Your task to perform on an android device: Turn on the flashlight Image 0: 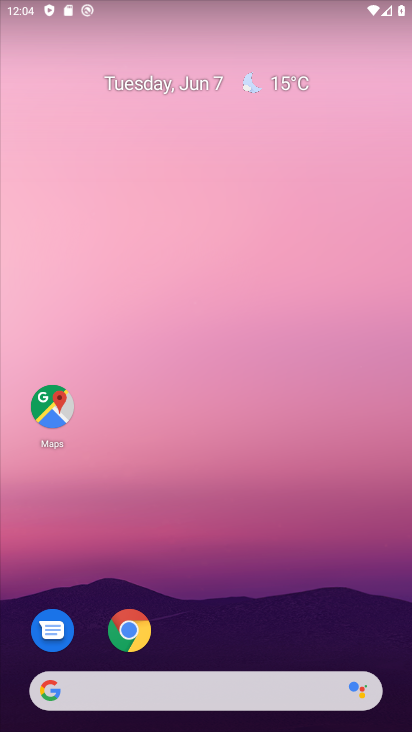
Step 0: drag from (265, 596) to (265, 183)
Your task to perform on an android device: Turn on the flashlight Image 1: 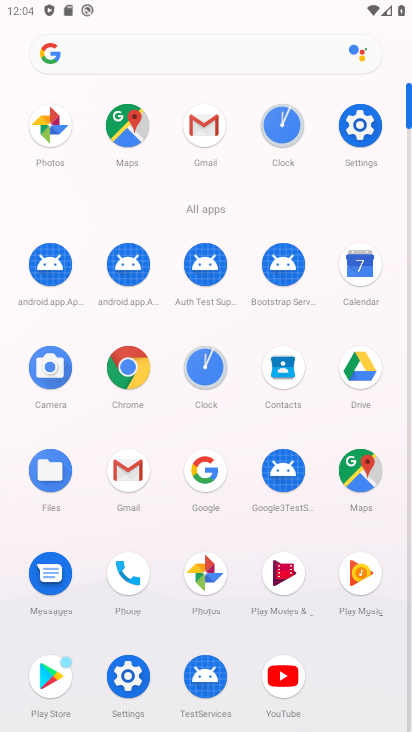
Step 1: click (127, 675)
Your task to perform on an android device: Turn on the flashlight Image 2: 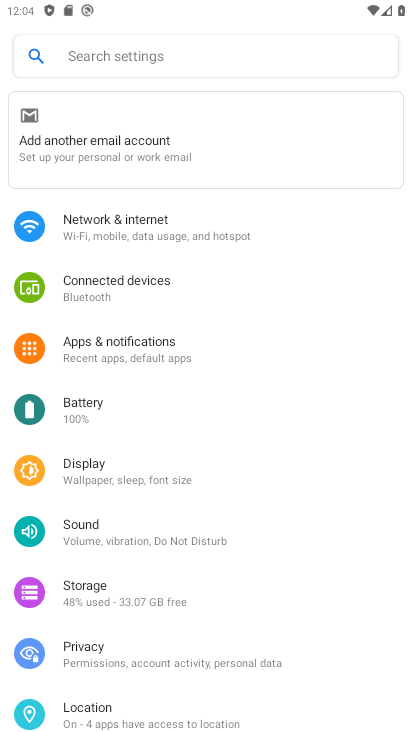
Step 2: click (191, 58)
Your task to perform on an android device: Turn on the flashlight Image 3: 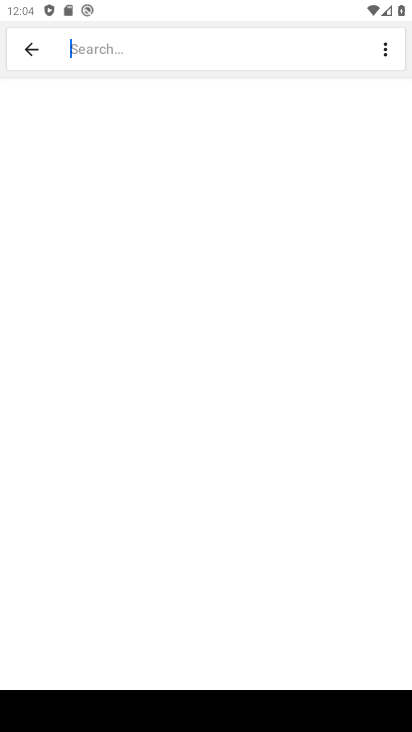
Step 3: type "flashlight"
Your task to perform on an android device: Turn on the flashlight Image 4: 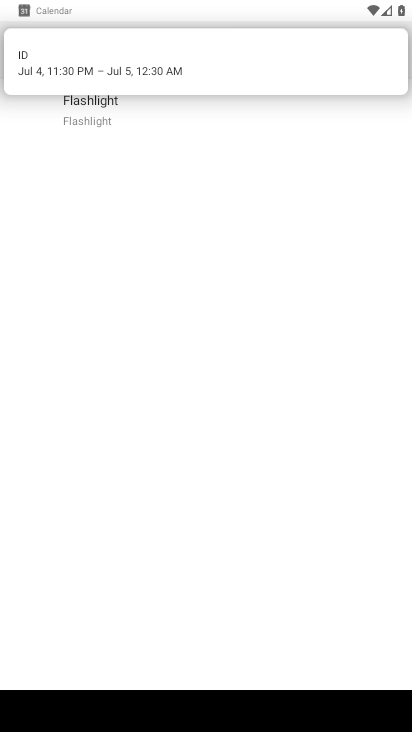
Step 4: task complete